Your task to perform on an android device: see sites visited before in the chrome app Image 0: 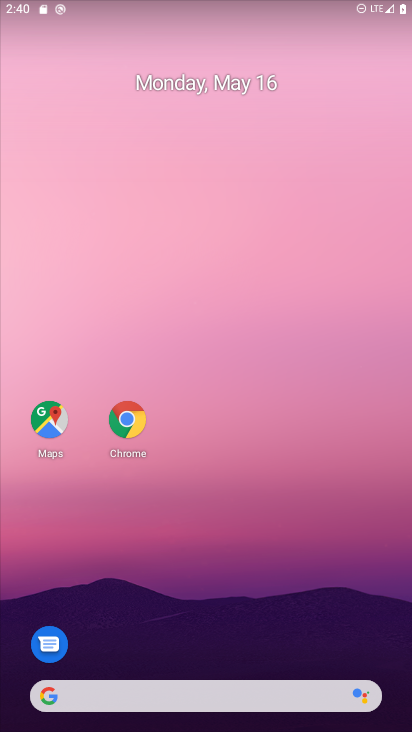
Step 0: drag from (186, 626) to (224, 122)
Your task to perform on an android device: see sites visited before in the chrome app Image 1: 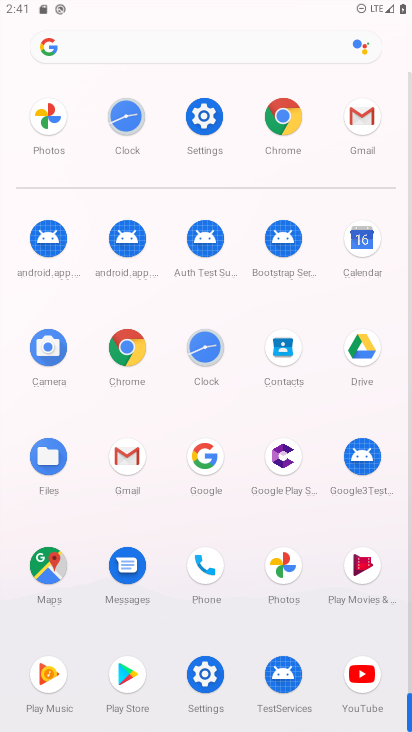
Step 1: click (109, 350)
Your task to perform on an android device: see sites visited before in the chrome app Image 2: 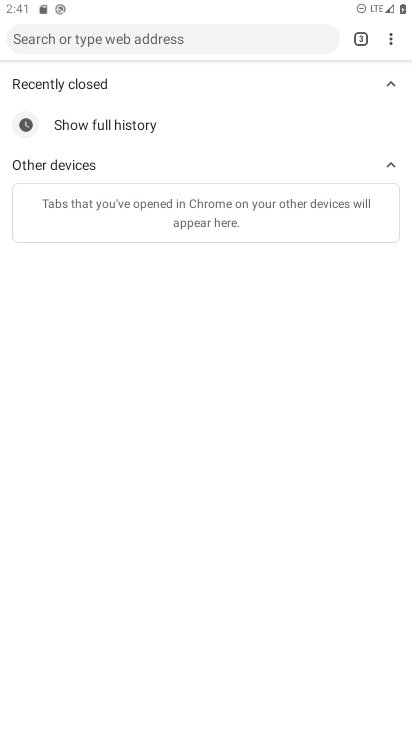
Step 2: click (389, 38)
Your task to perform on an android device: see sites visited before in the chrome app Image 3: 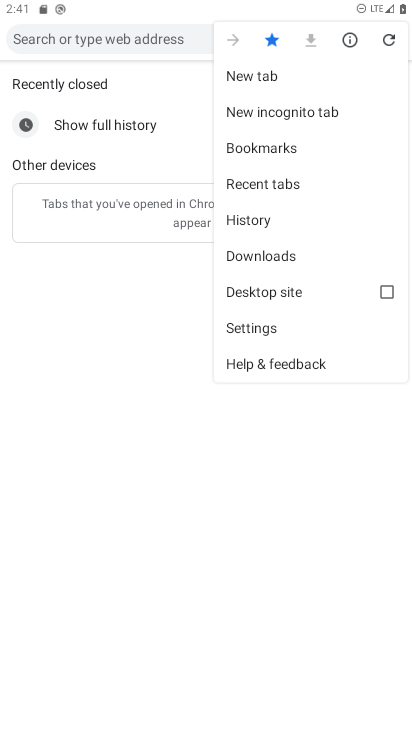
Step 3: click (264, 161)
Your task to perform on an android device: see sites visited before in the chrome app Image 4: 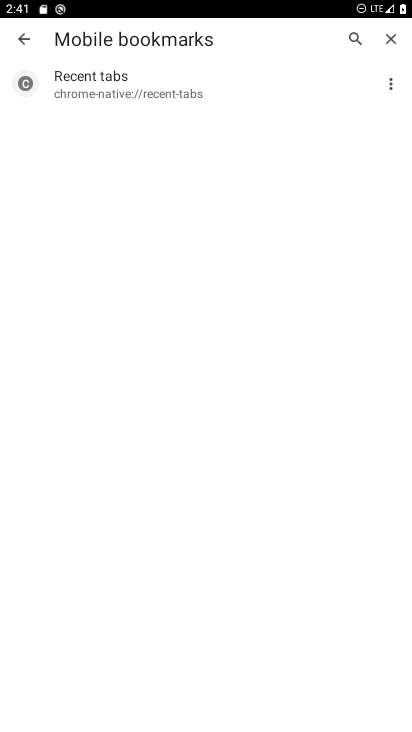
Step 4: drag from (209, 478) to (200, 358)
Your task to perform on an android device: see sites visited before in the chrome app Image 5: 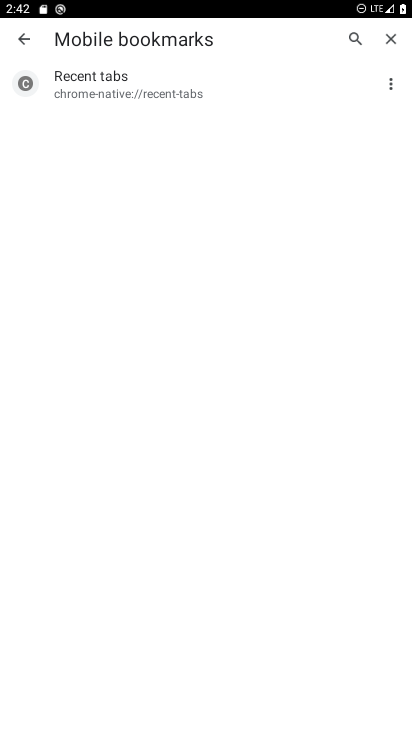
Step 5: click (155, 95)
Your task to perform on an android device: see sites visited before in the chrome app Image 6: 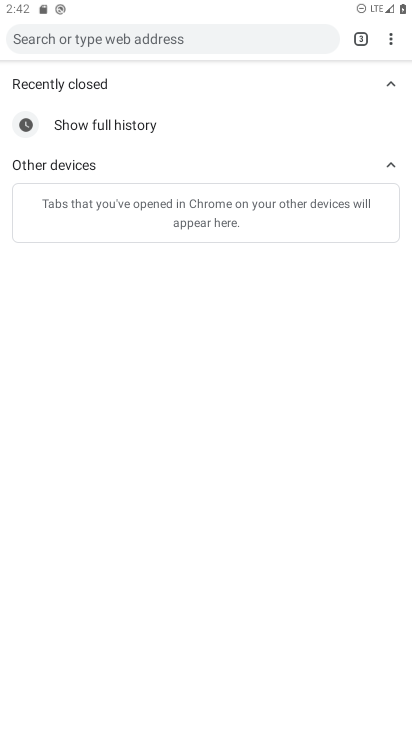
Step 6: task complete